Your task to perform on an android device: turn on showing notifications on the lock screen Image 0: 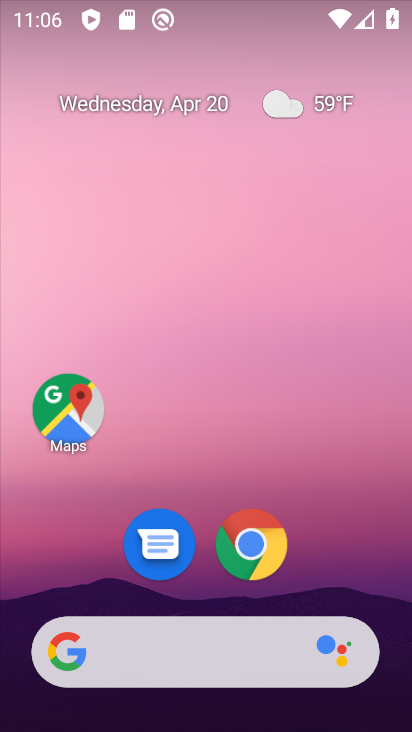
Step 0: drag from (325, 555) to (299, 1)
Your task to perform on an android device: turn on showing notifications on the lock screen Image 1: 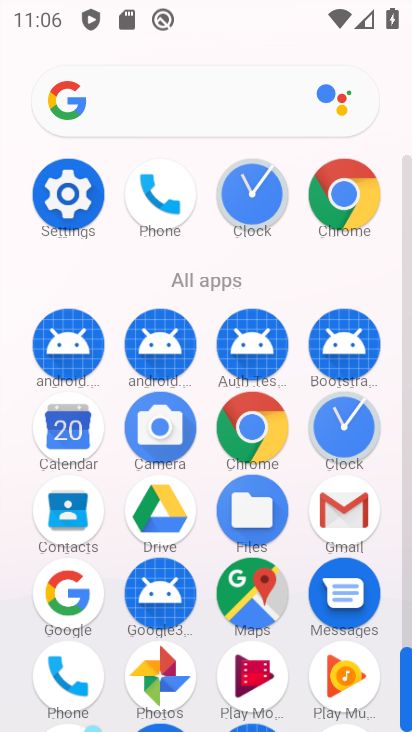
Step 1: click (67, 201)
Your task to perform on an android device: turn on showing notifications on the lock screen Image 2: 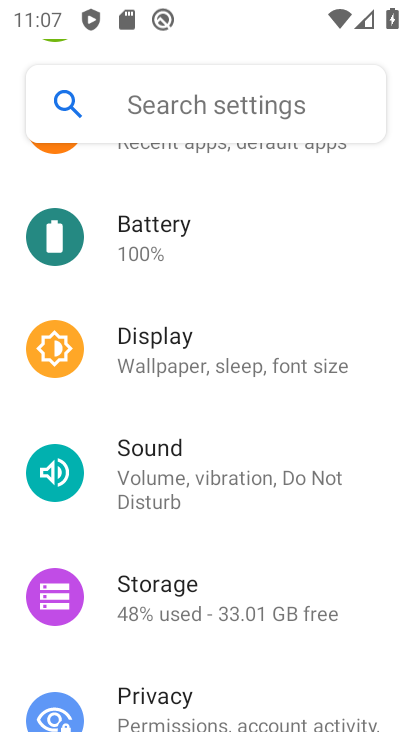
Step 2: drag from (310, 257) to (245, 649)
Your task to perform on an android device: turn on showing notifications on the lock screen Image 3: 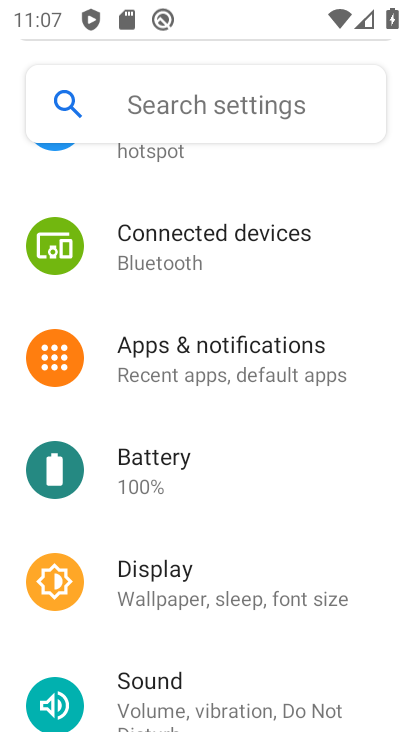
Step 3: click (201, 349)
Your task to perform on an android device: turn on showing notifications on the lock screen Image 4: 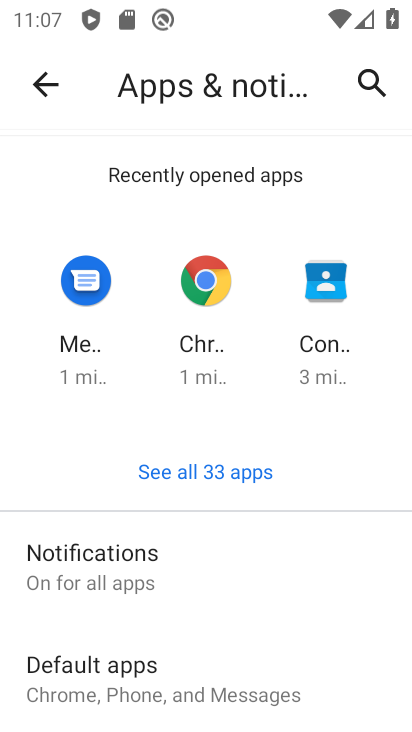
Step 4: click (146, 552)
Your task to perform on an android device: turn on showing notifications on the lock screen Image 5: 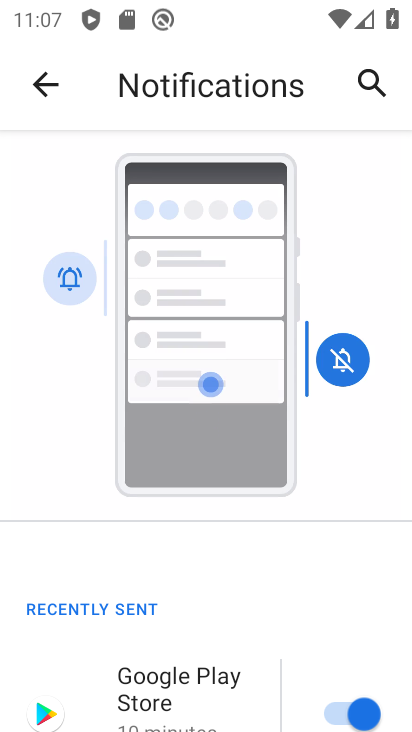
Step 5: drag from (204, 534) to (248, 78)
Your task to perform on an android device: turn on showing notifications on the lock screen Image 6: 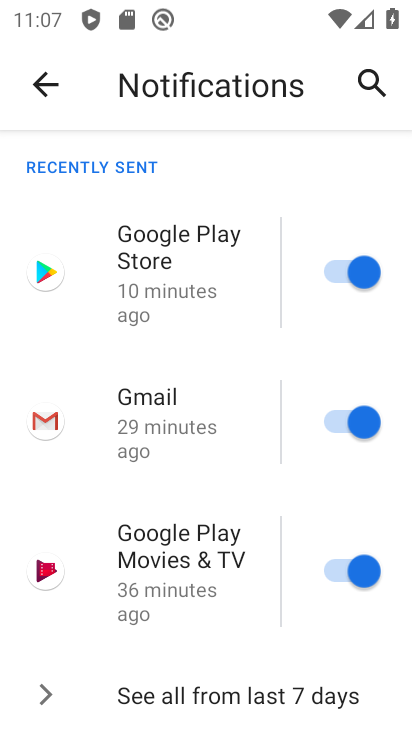
Step 6: drag from (169, 571) to (233, 141)
Your task to perform on an android device: turn on showing notifications on the lock screen Image 7: 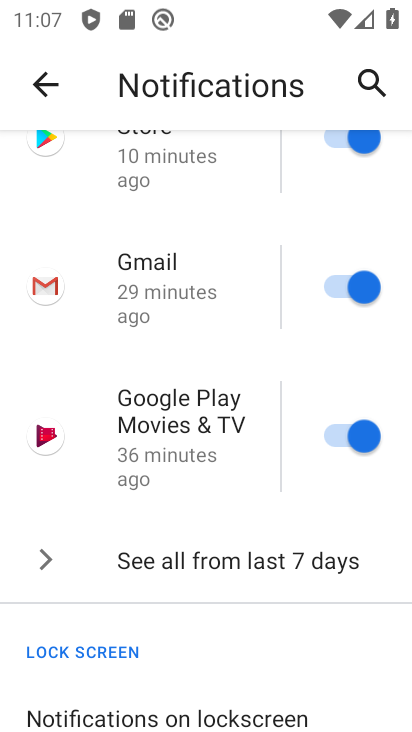
Step 7: drag from (148, 555) to (190, 188)
Your task to perform on an android device: turn on showing notifications on the lock screen Image 8: 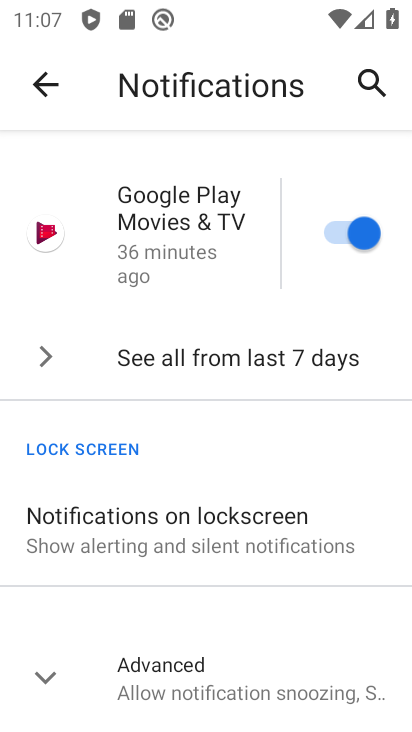
Step 8: click (157, 538)
Your task to perform on an android device: turn on showing notifications on the lock screen Image 9: 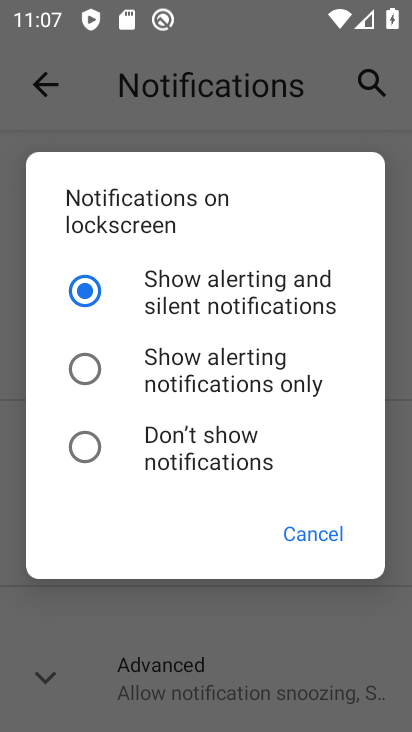
Step 9: task complete